Your task to perform on an android device: When is my next appointment? Image 0: 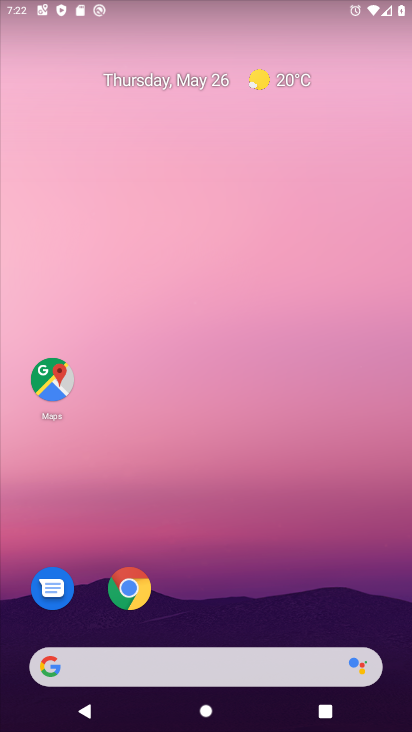
Step 0: drag from (356, 602) to (310, 5)
Your task to perform on an android device: When is my next appointment? Image 1: 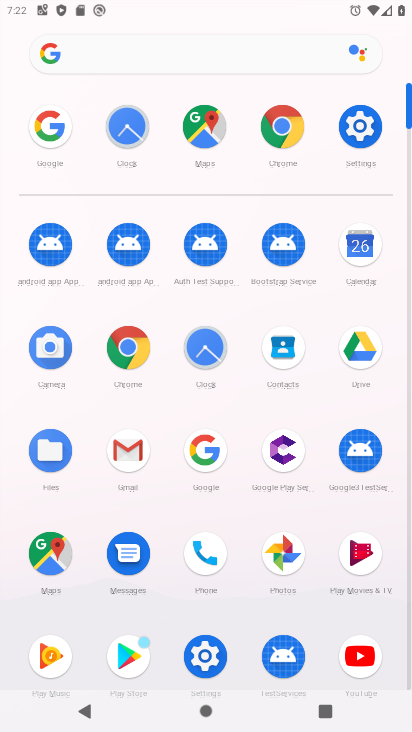
Step 1: click (356, 252)
Your task to perform on an android device: When is my next appointment? Image 2: 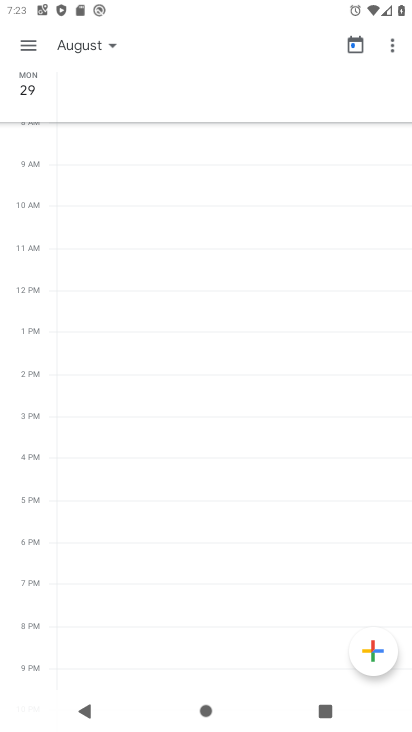
Step 2: task complete